Your task to perform on an android device: Open calendar and show me the fourth week of next month Image 0: 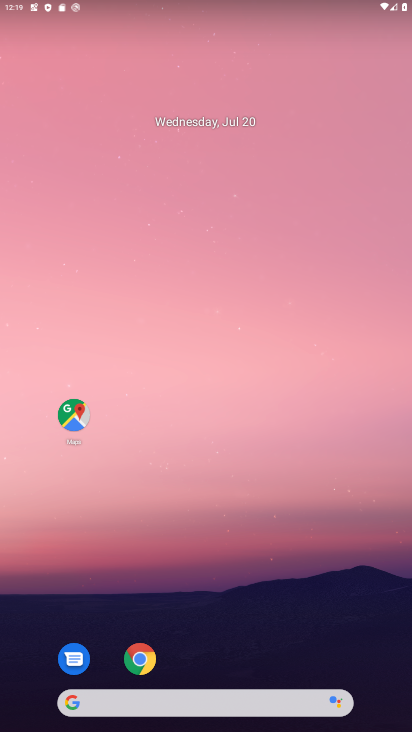
Step 0: drag from (288, 553) to (224, 74)
Your task to perform on an android device: Open calendar and show me the fourth week of next month Image 1: 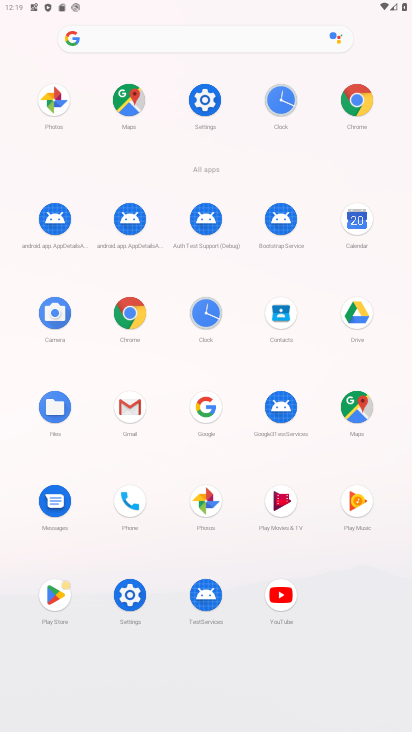
Step 1: click (353, 210)
Your task to perform on an android device: Open calendar and show me the fourth week of next month Image 2: 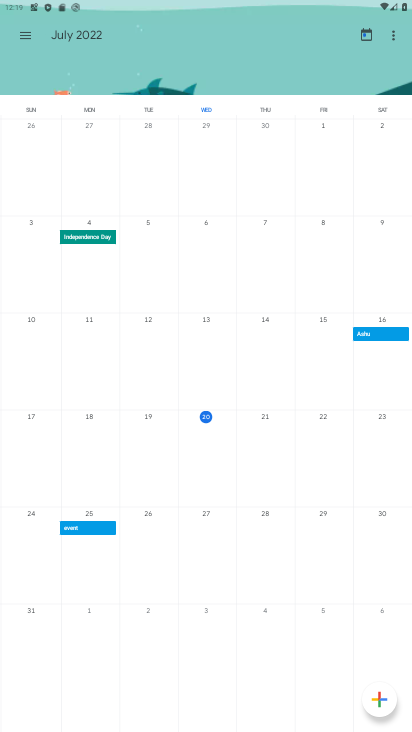
Step 2: task complete